Your task to perform on an android device: Check the weather Image 0: 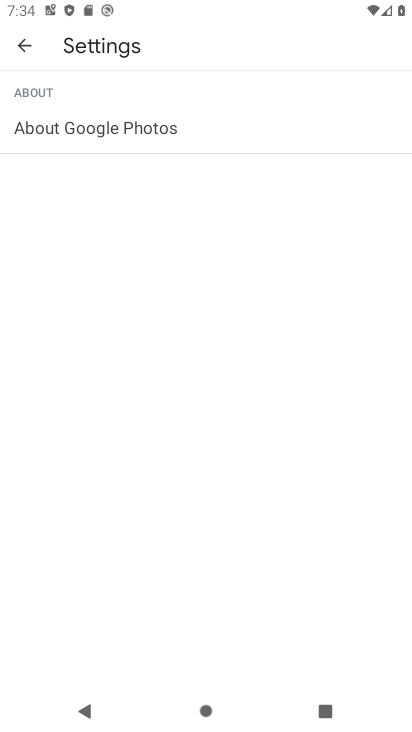
Step 0: press home button
Your task to perform on an android device: Check the weather Image 1: 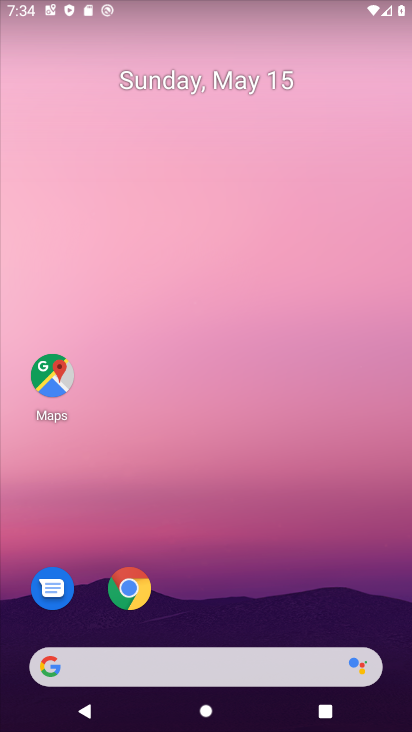
Step 1: drag from (19, 241) to (409, 289)
Your task to perform on an android device: Check the weather Image 2: 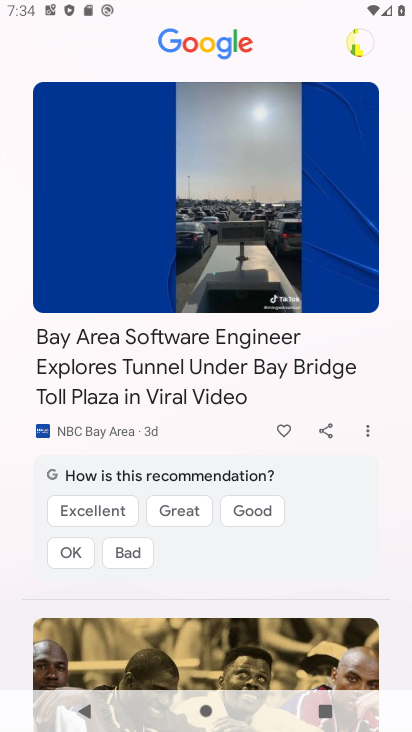
Step 2: drag from (203, 299) to (199, 665)
Your task to perform on an android device: Check the weather Image 3: 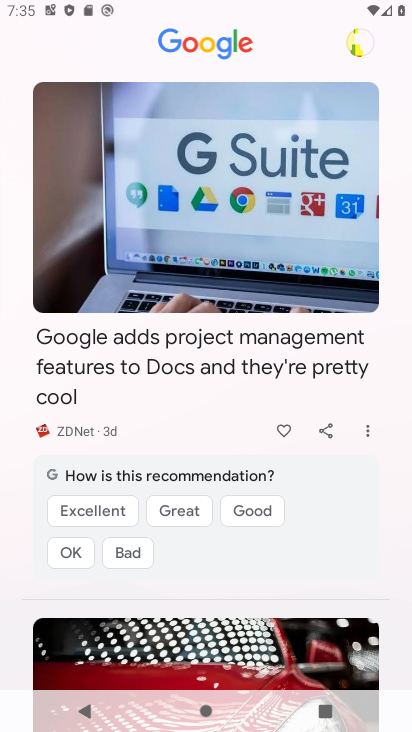
Step 3: press back button
Your task to perform on an android device: Check the weather Image 4: 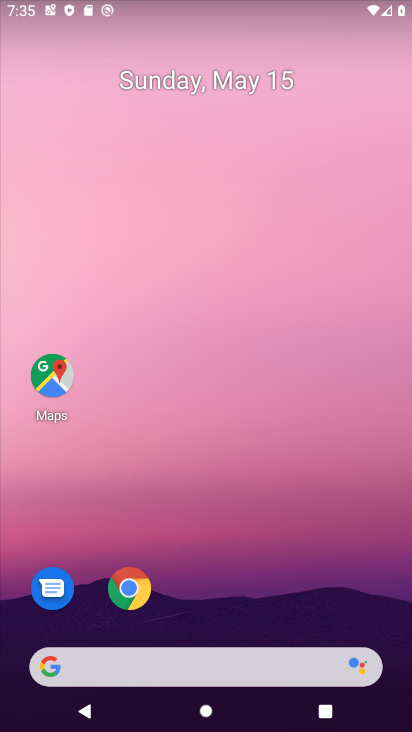
Step 4: click (200, 667)
Your task to perform on an android device: Check the weather Image 5: 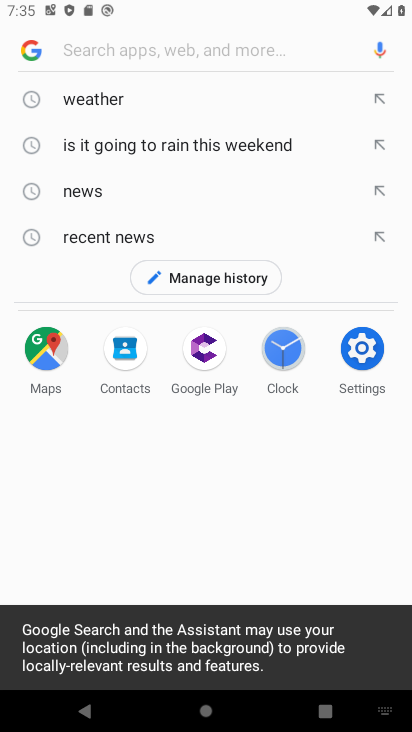
Step 5: click (112, 91)
Your task to perform on an android device: Check the weather Image 6: 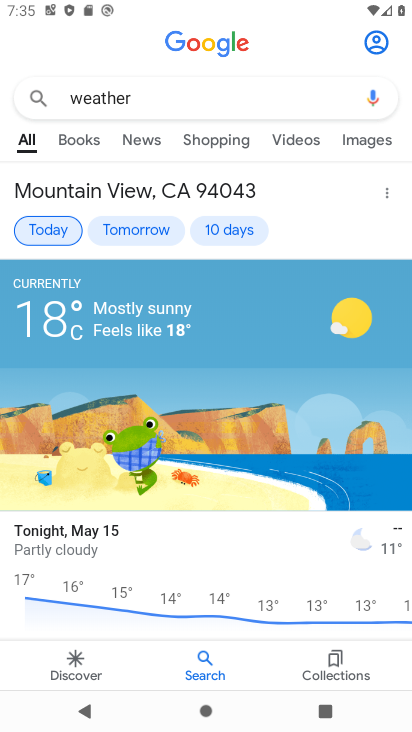
Step 6: task complete